Your task to perform on an android device: Open settings Image 0: 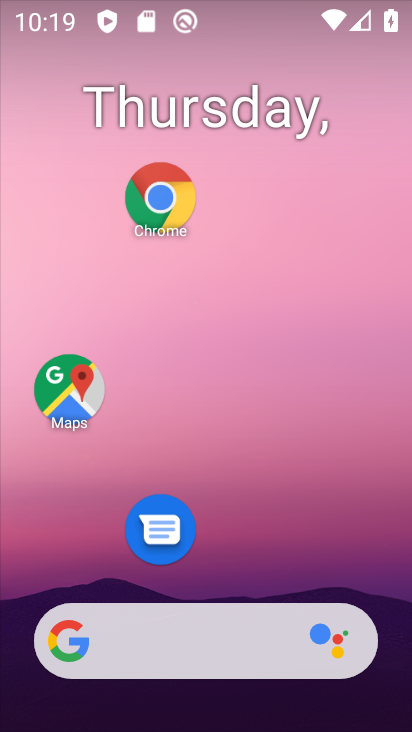
Step 0: drag from (261, 535) to (258, 214)
Your task to perform on an android device: Open settings Image 1: 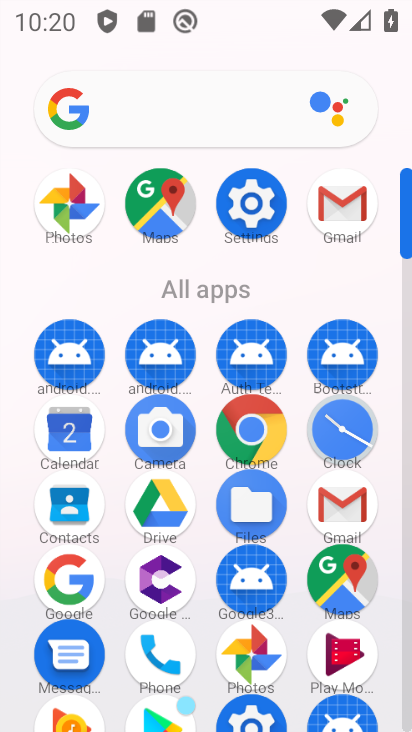
Step 1: click (252, 198)
Your task to perform on an android device: Open settings Image 2: 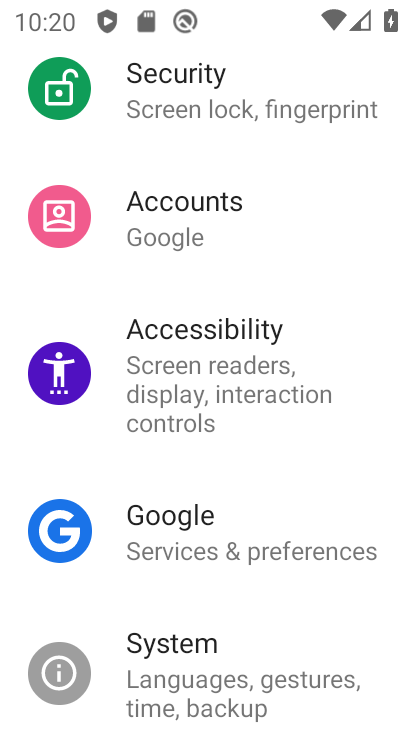
Step 2: task complete